Your task to perform on an android device: turn off translation in the chrome app Image 0: 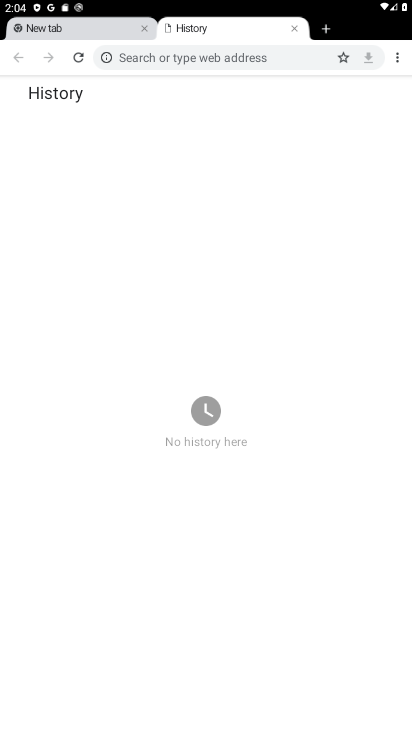
Step 0: press home button
Your task to perform on an android device: turn off translation in the chrome app Image 1: 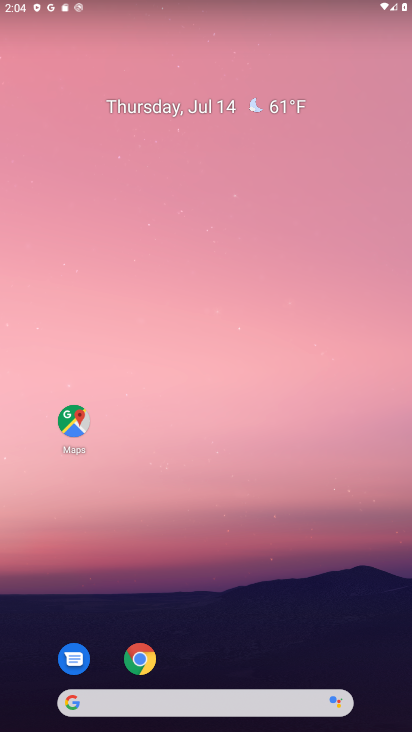
Step 1: drag from (204, 673) to (180, 216)
Your task to perform on an android device: turn off translation in the chrome app Image 2: 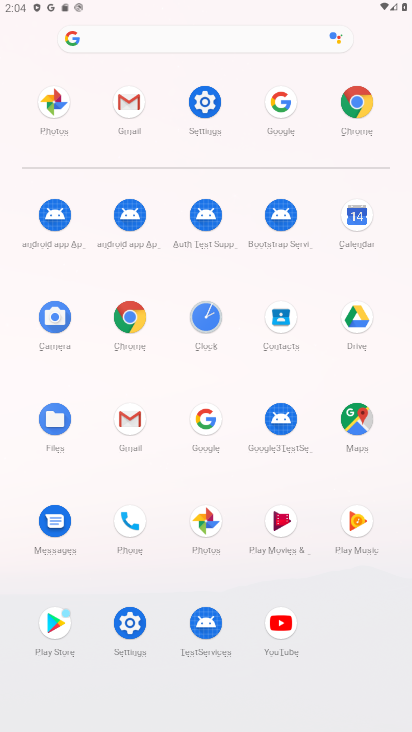
Step 2: click (358, 99)
Your task to perform on an android device: turn off translation in the chrome app Image 3: 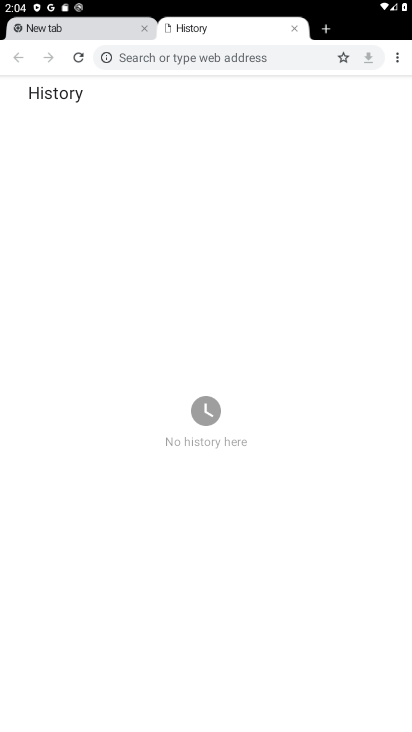
Step 3: drag from (395, 55) to (285, 301)
Your task to perform on an android device: turn off translation in the chrome app Image 4: 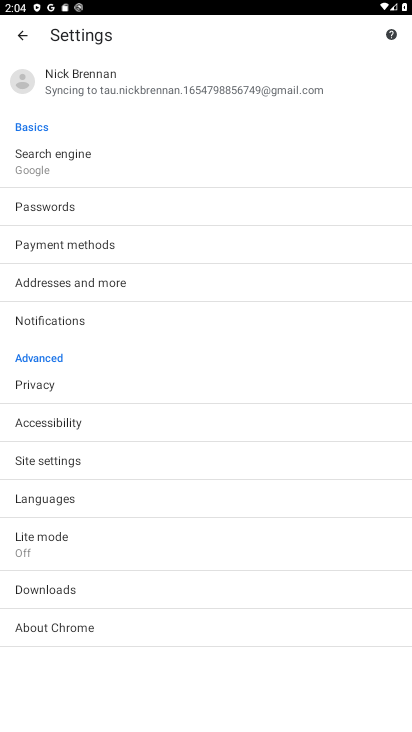
Step 4: click (40, 490)
Your task to perform on an android device: turn off translation in the chrome app Image 5: 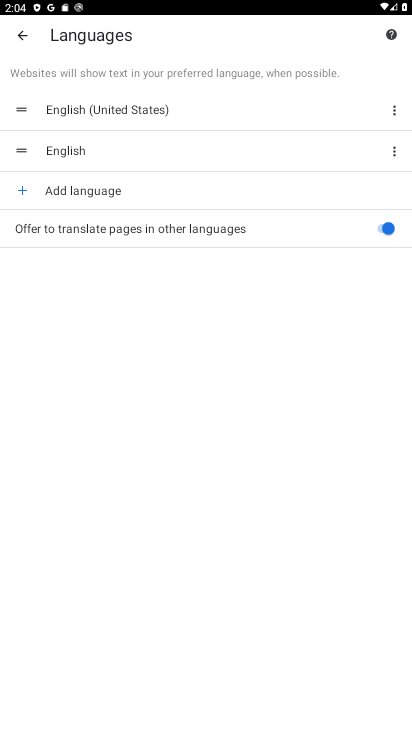
Step 5: click (383, 230)
Your task to perform on an android device: turn off translation in the chrome app Image 6: 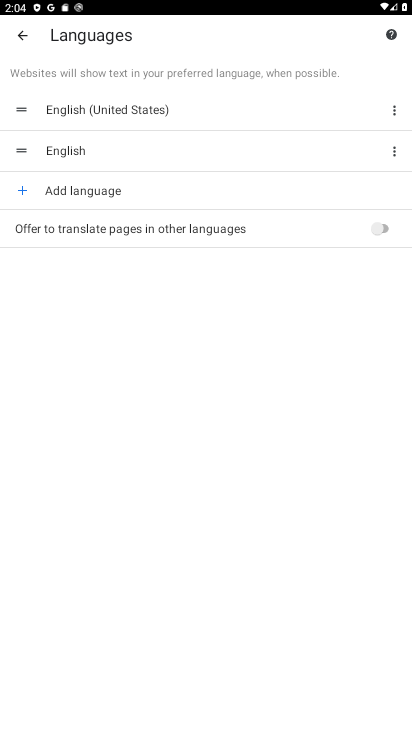
Step 6: task complete